Your task to perform on an android device: change your default location settings in chrome Image 0: 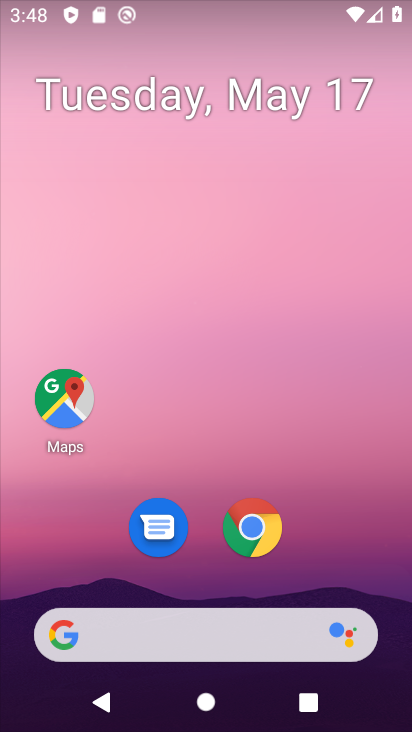
Step 0: click (249, 539)
Your task to perform on an android device: change your default location settings in chrome Image 1: 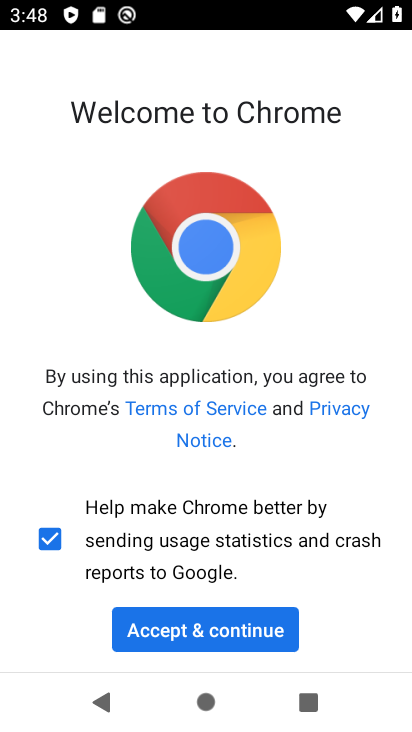
Step 1: click (223, 619)
Your task to perform on an android device: change your default location settings in chrome Image 2: 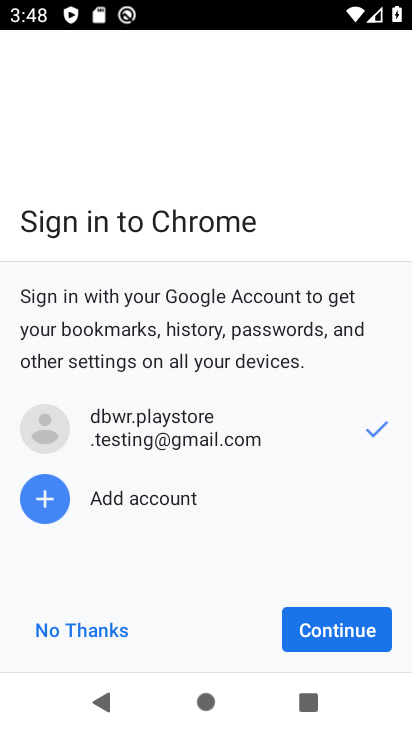
Step 2: click (366, 619)
Your task to perform on an android device: change your default location settings in chrome Image 3: 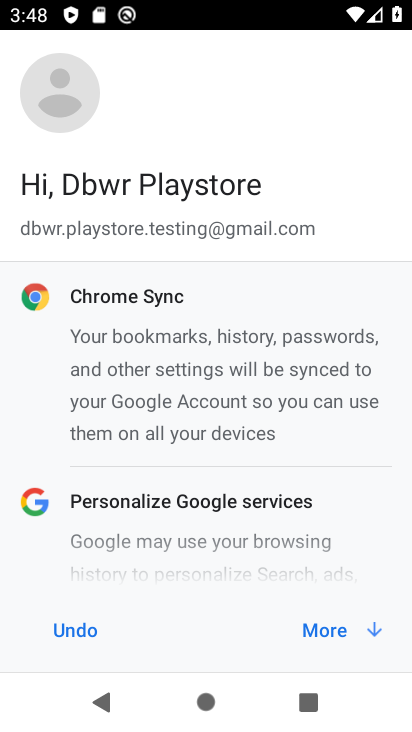
Step 3: click (338, 638)
Your task to perform on an android device: change your default location settings in chrome Image 4: 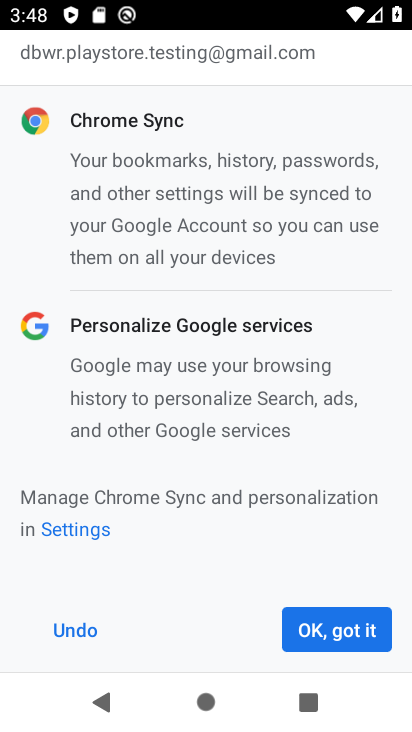
Step 4: click (337, 639)
Your task to perform on an android device: change your default location settings in chrome Image 5: 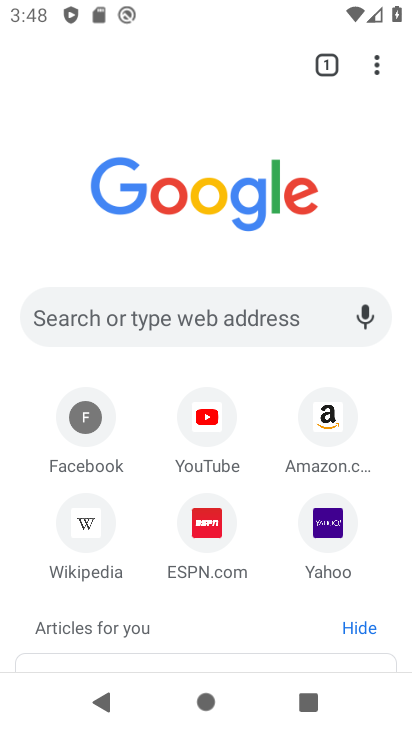
Step 5: drag from (389, 61) to (253, 553)
Your task to perform on an android device: change your default location settings in chrome Image 6: 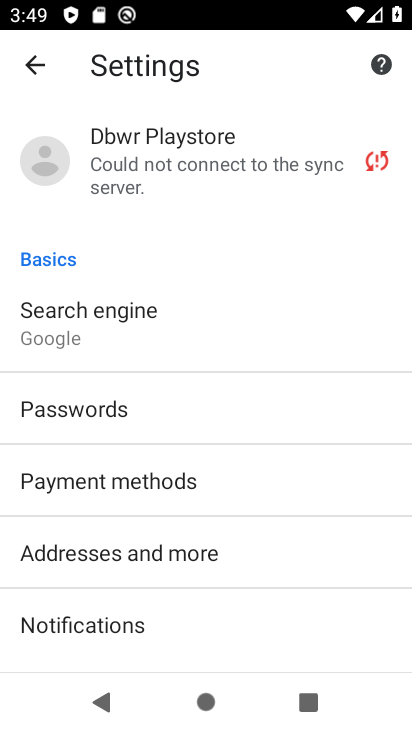
Step 6: drag from (163, 603) to (245, 234)
Your task to perform on an android device: change your default location settings in chrome Image 7: 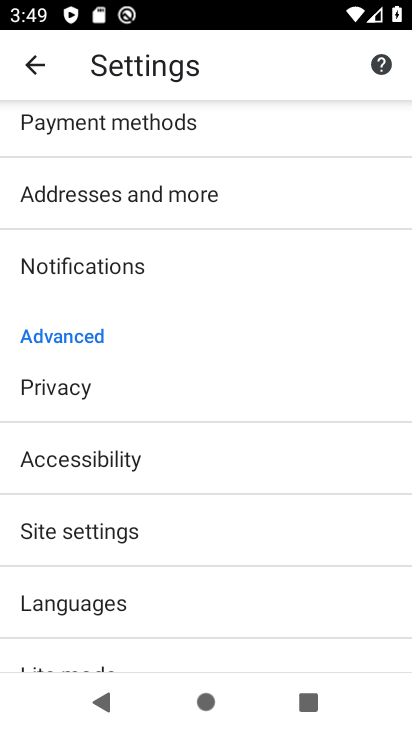
Step 7: click (134, 537)
Your task to perform on an android device: change your default location settings in chrome Image 8: 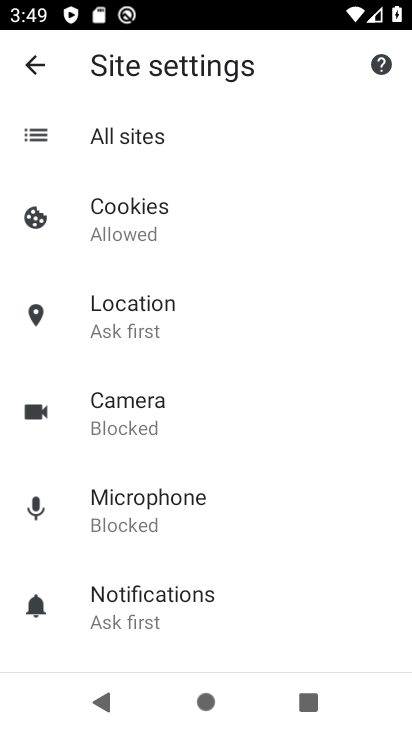
Step 8: drag from (206, 551) to (263, 293)
Your task to perform on an android device: change your default location settings in chrome Image 9: 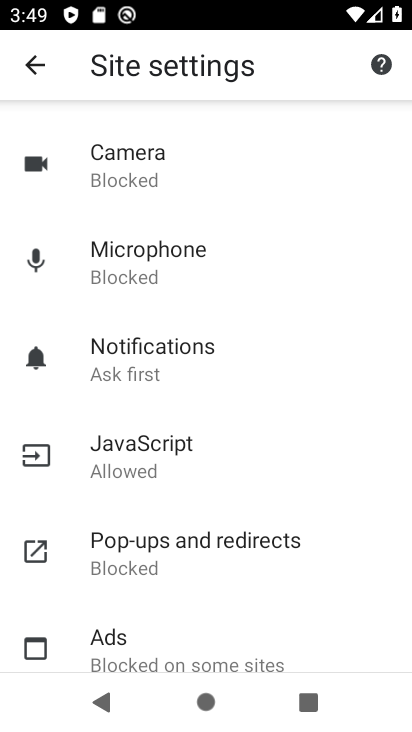
Step 9: drag from (215, 270) to (227, 562)
Your task to perform on an android device: change your default location settings in chrome Image 10: 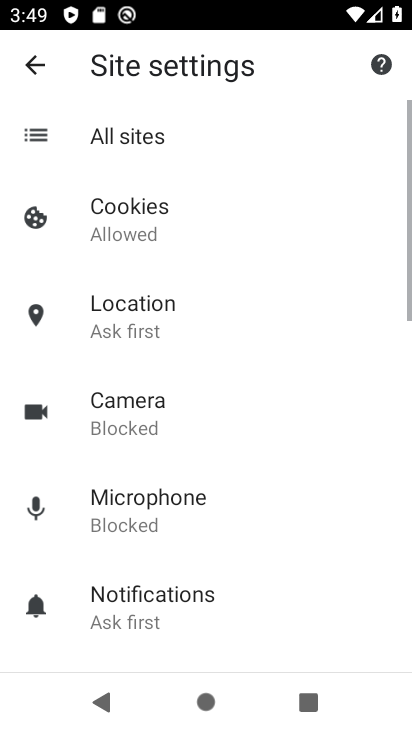
Step 10: click (195, 316)
Your task to perform on an android device: change your default location settings in chrome Image 11: 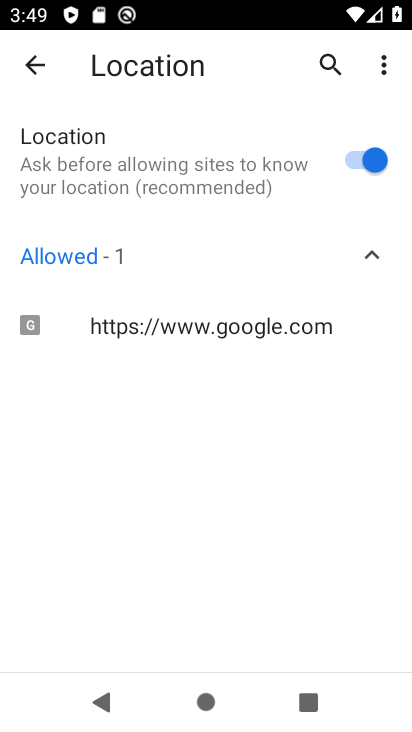
Step 11: click (327, 325)
Your task to perform on an android device: change your default location settings in chrome Image 12: 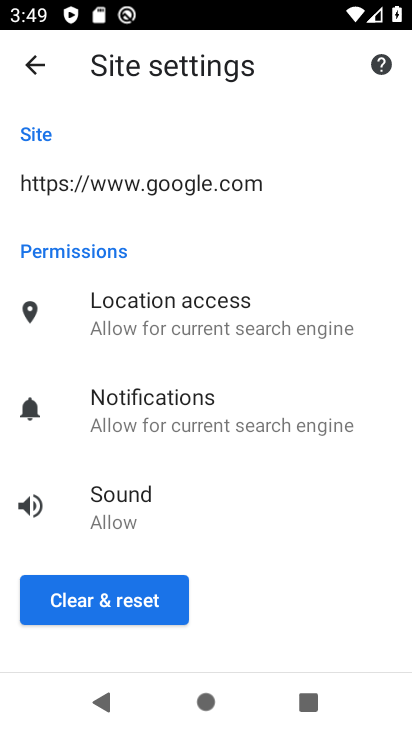
Step 12: click (239, 322)
Your task to perform on an android device: change your default location settings in chrome Image 13: 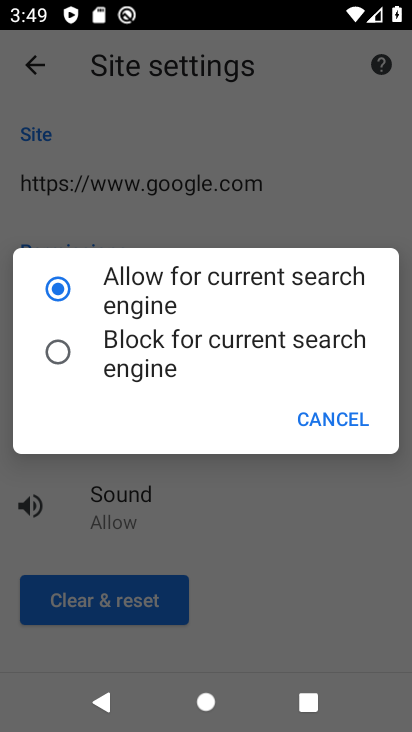
Step 13: click (280, 330)
Your task to perform on an android device: change your default location settings in chrome Image 14: 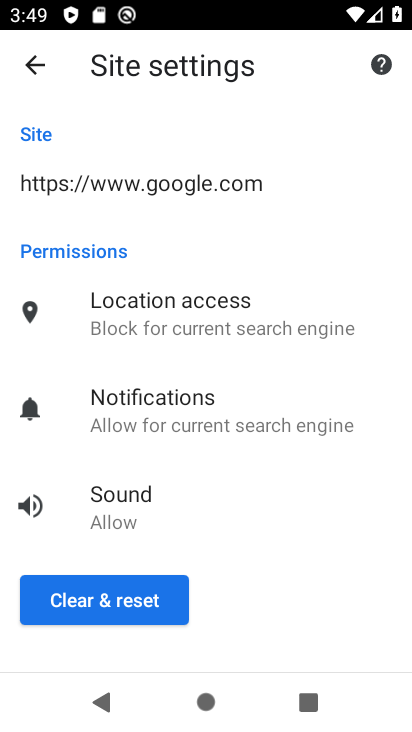
Step 14: task complete